Your task to perform on an android device: Open Chrome and go to settings Image 0: 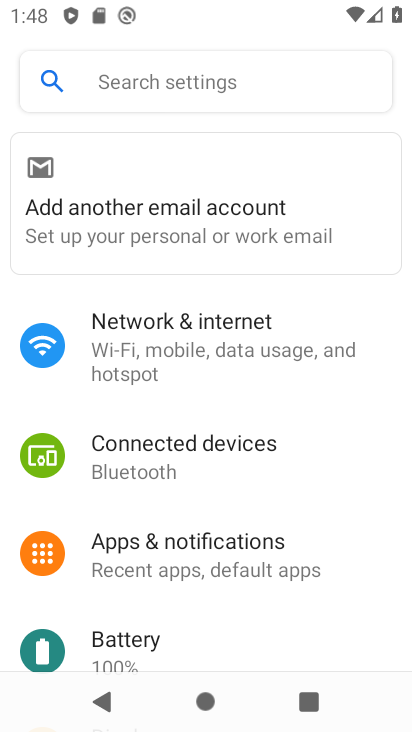
Step 0: press home button
Your task to perform on an android device: Open Chrome and go to settings Image 1: 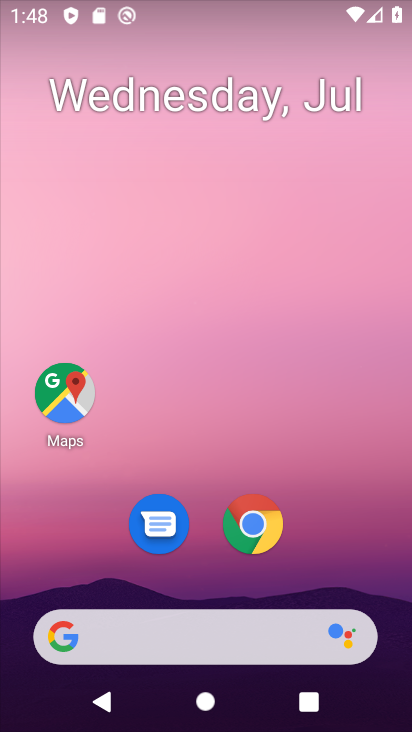
Step 1: click (268, 522)
Your task to perform on an android device: Open Chrome and go to settings Image 2: 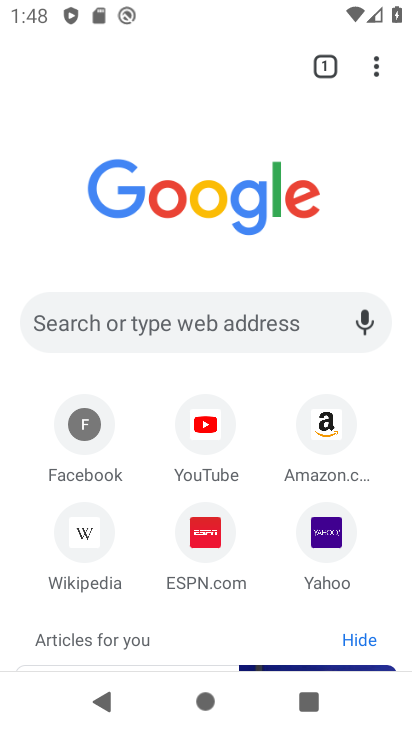
Step 2: click (372, 73)
Your task to perform on an android device: Open Chrome and go to settings Image 3: 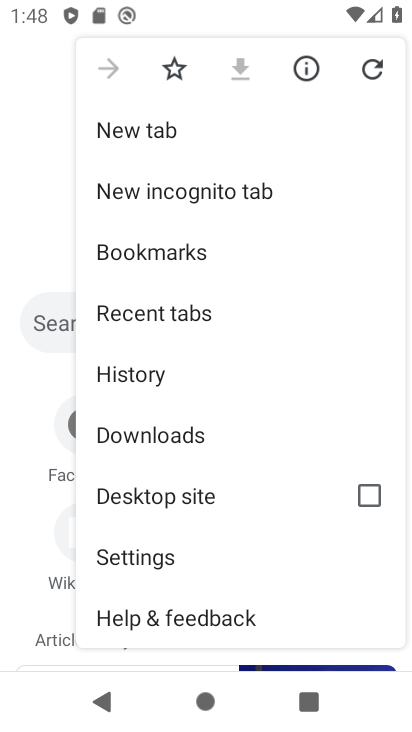
Step 3: click (166, 554)
Your task to perform on an android device: Open Chrome and go to settings Image 4: 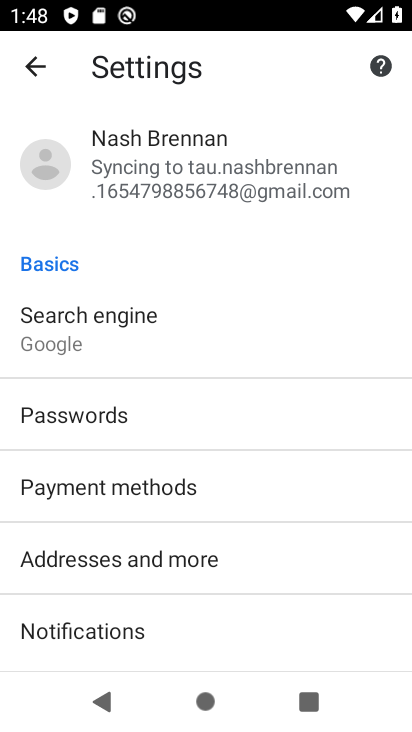
Step 4: task complete